Your task to perform on an android device: Search for sushi restaurants on Maps Image 0: 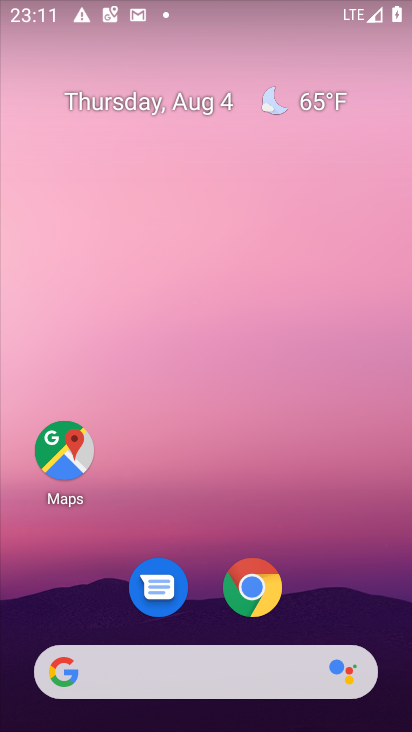
Step 0: drag from (170, 601) to (242, 177)
Your task to perform on an android device: Search for sushi restaurants on Maps Image 1: 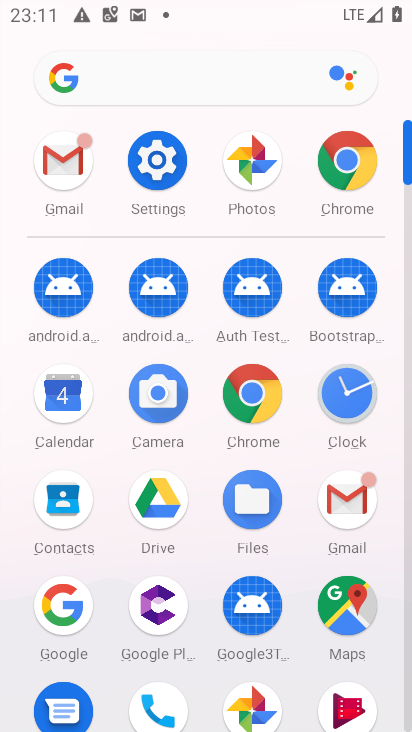
Step 1: click (341, 589)
Your task to perform on an android device: Search for sushi restaurants on Maps Image 2: 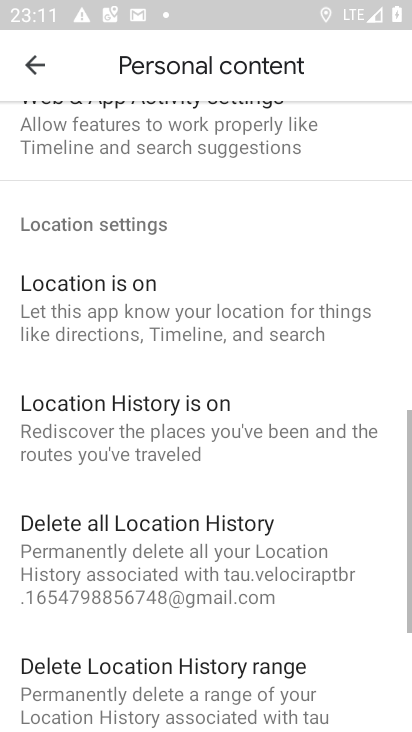
Step 2: click (40, 64)
Your task to perform on an android device: Search for sushi restaurants on Maps Image 3: 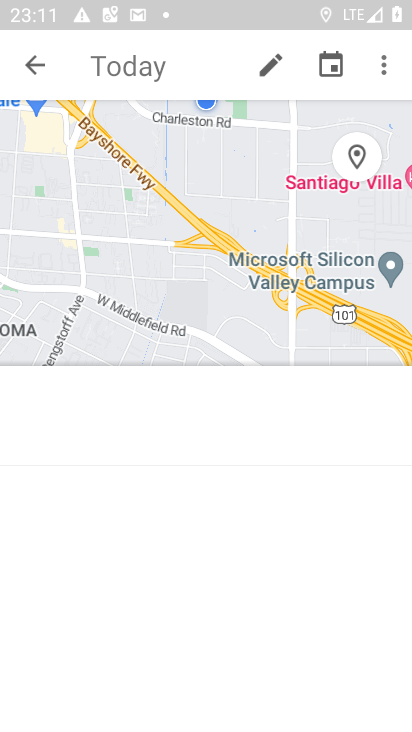
Step 3: click (53, 72)
Your task to perform on an android device: Search for sushi restaurants on Maps Image 4: 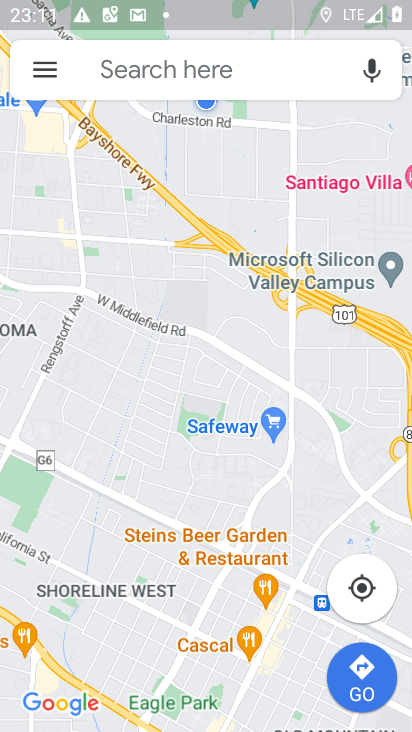
Step 4: click (158, 65)
Your task to perform on an android device: Search for sushi restaurants on Maps Image 5: 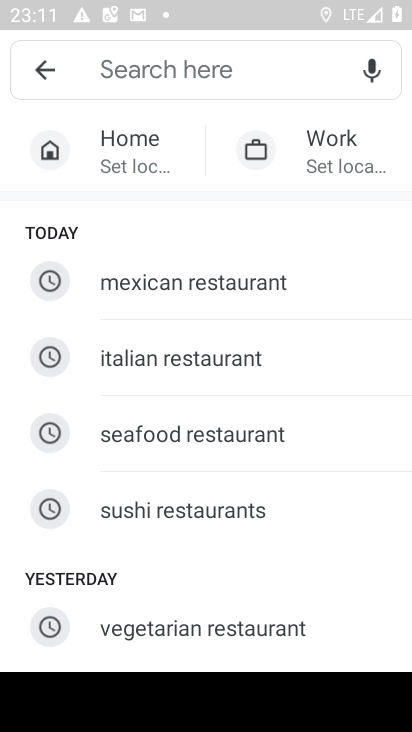
Step 5: click (213, 512)
Your task to perform on an android device: Search for sushi restaurants on Maps Image 6: 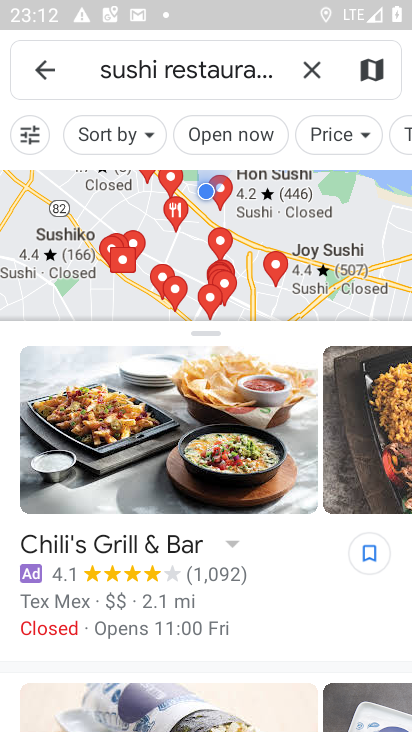
Step 6: task complete